Your task to perform on an android device: Go to network settings Image 0: 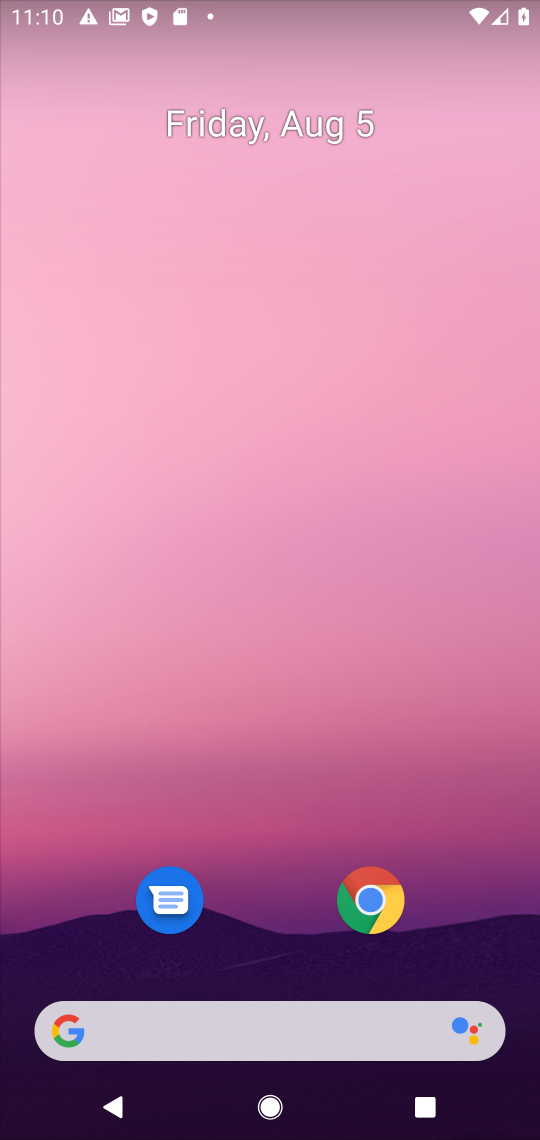
Step 0: drag from (270, 533) to (266, 169)
Your task to perform on an android device: Go to network settings Image 1: 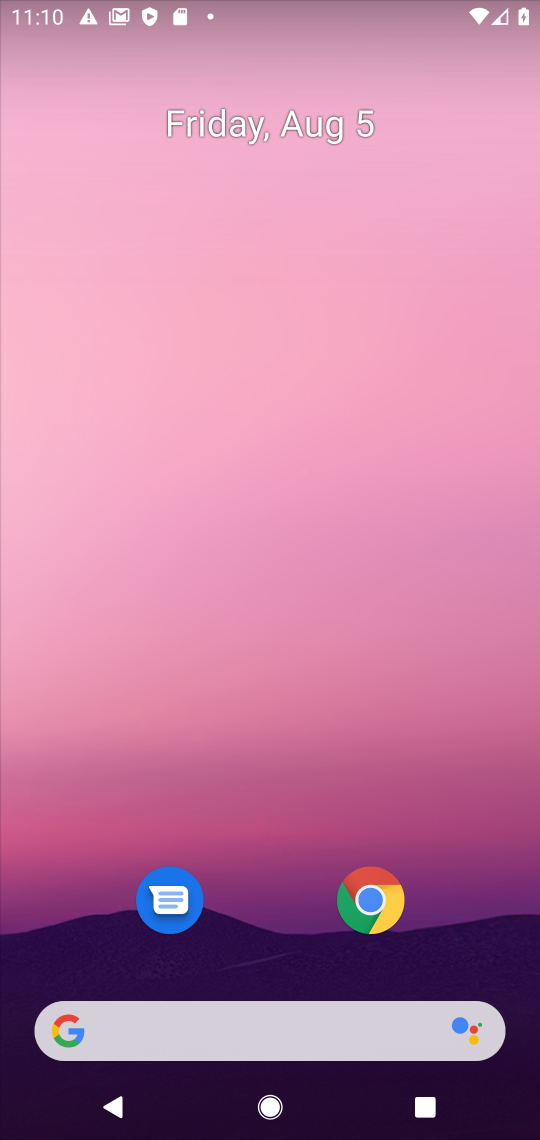
Step 1: drag from (286, 831) to (287, 189)
Your task to perform on an android device: Go to network settings Image 2: 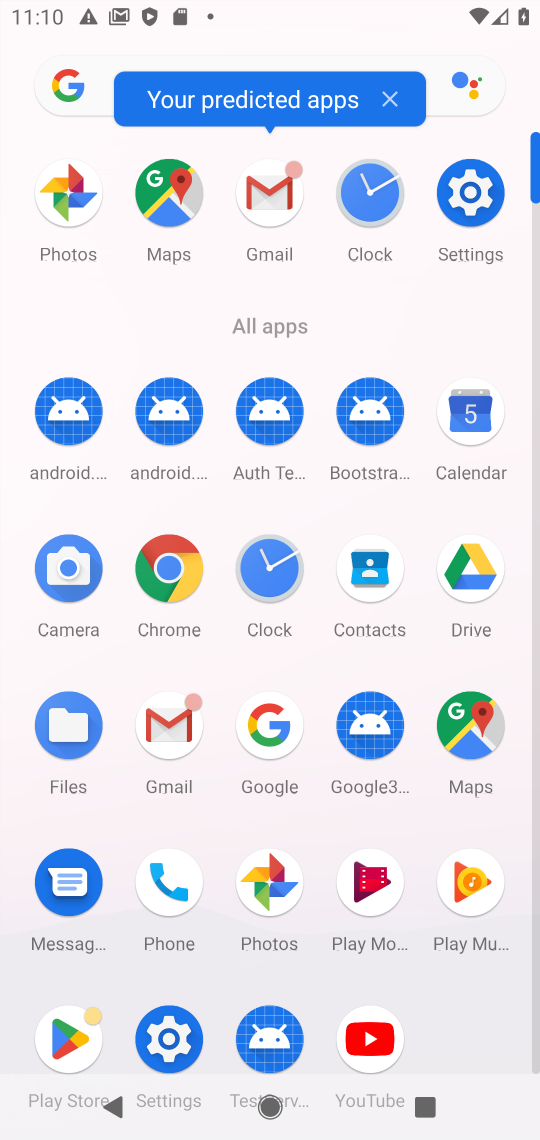
Step 2: click (461, 190)
Your task to perform on an android device: Go to network settings Image 3: 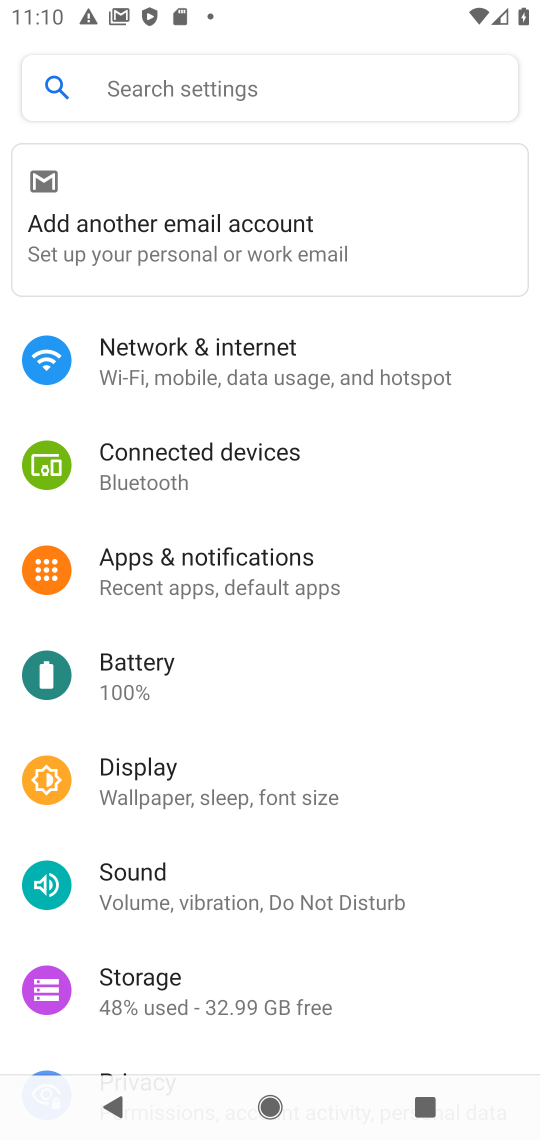
Step 3: click (166, 375)
Your task to perform on an android device: Go to network settings Image 4: 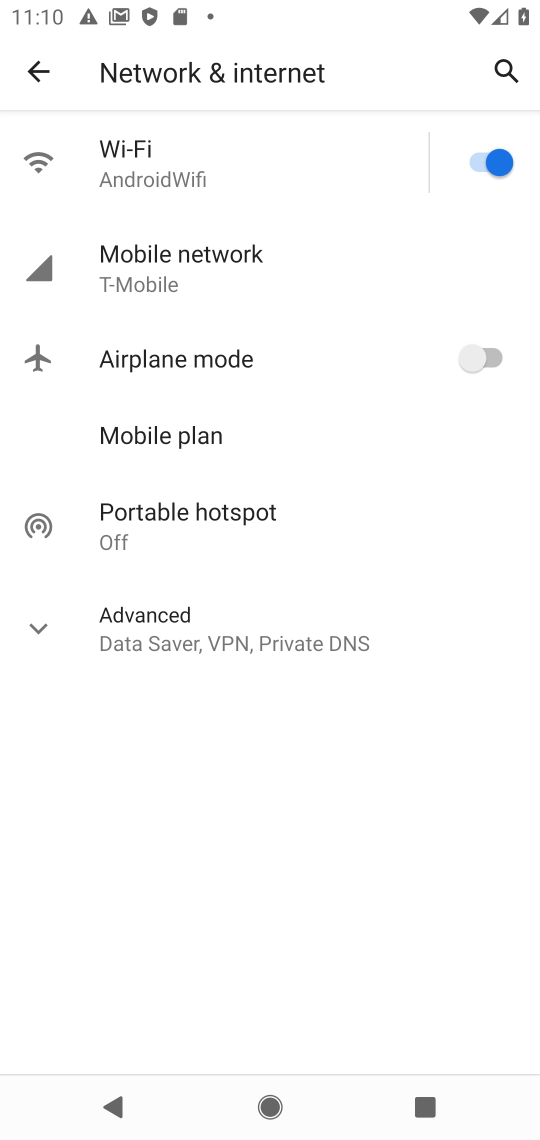
Step 4: click (174, 254)
Your task to perform on an android device: Go to network settings Image 5: 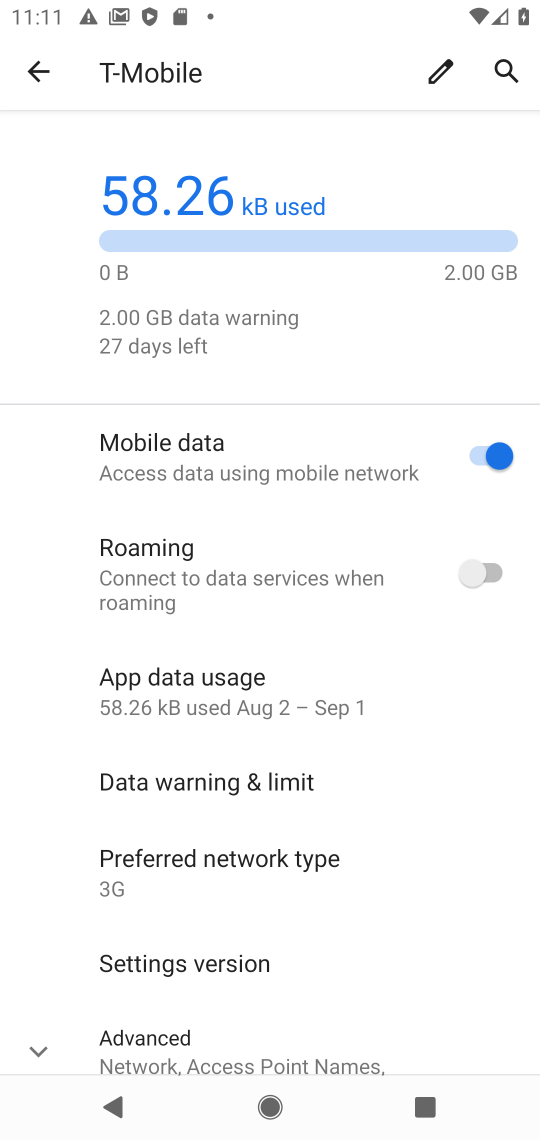
Step 5: click (141, 256)
Your task to perform on an android device: Go to network settings Image 6: 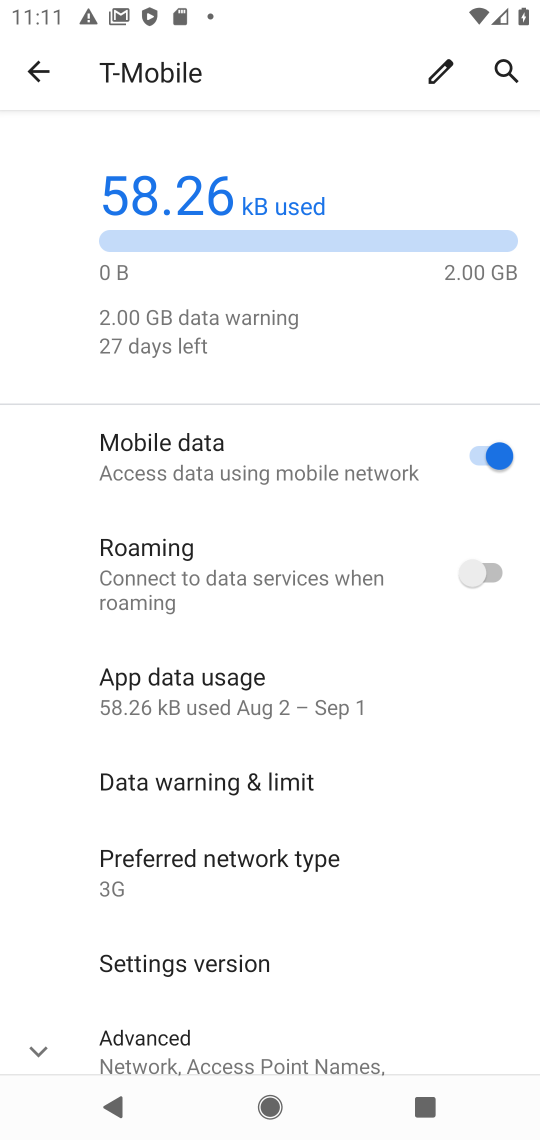
Step 6: task complete